Your task to perform on an android device: Open notification settings Image 0: 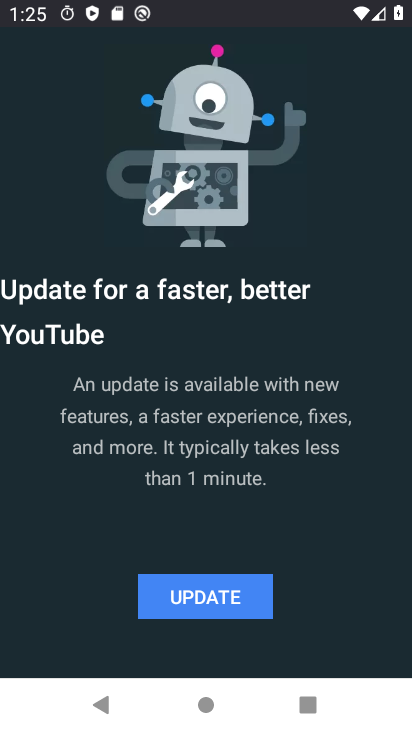
Step 0: press home button
Your task to perform on an android device: Open notification settings Image 1: 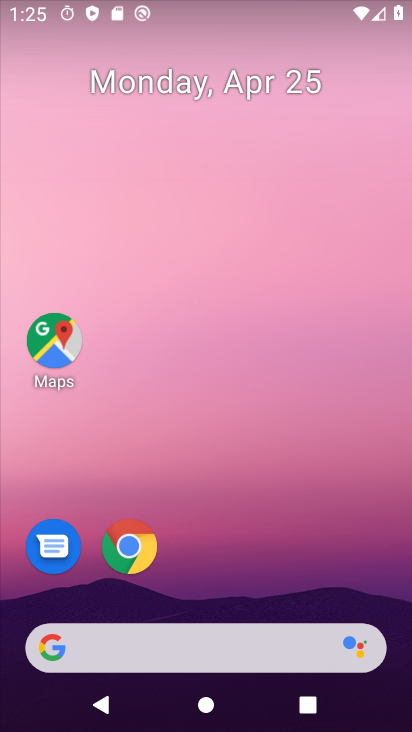
Step 1: drag from (210, 603) to (339, 24)
Your task to perform on an android device: Open notification settings Image 2: 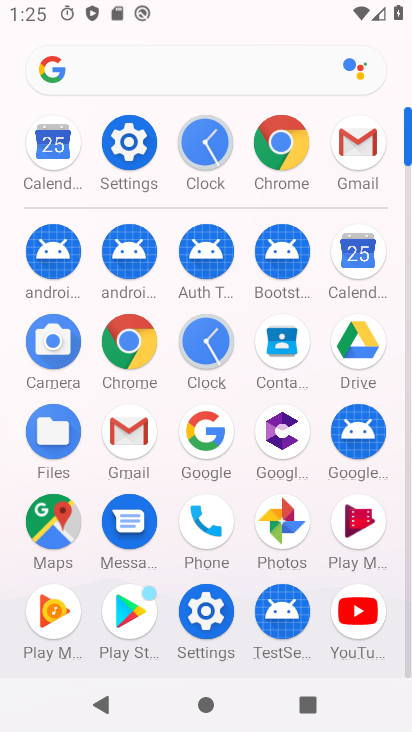
Step 2: click (189, 610)
Your task to perform on an android device: Open notification settings Image 3: 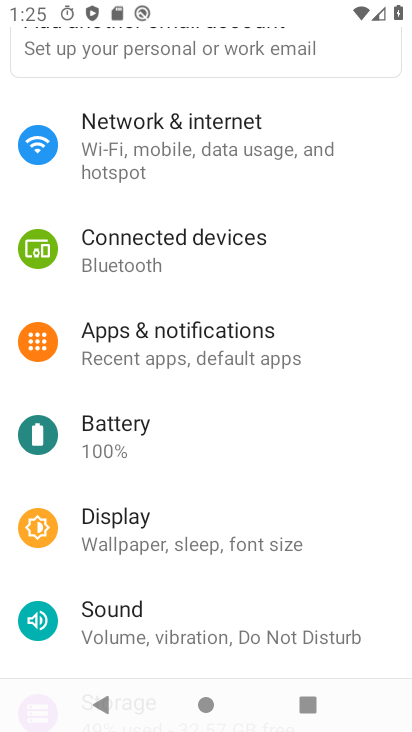
Step 3: click (154, 346)
Your task to perform on an android device: Open notification settings Image 4: 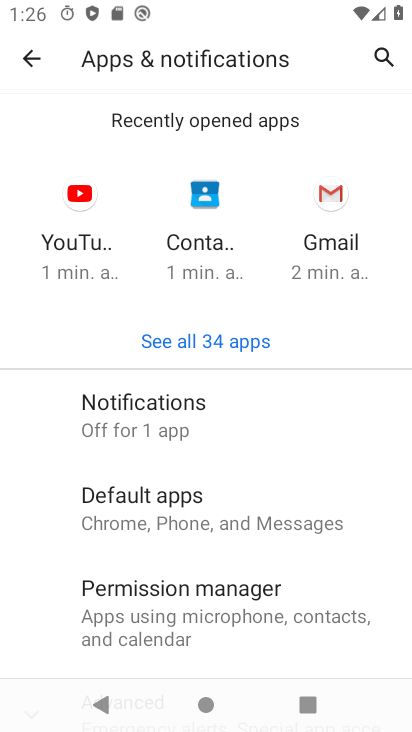
Step 4: click (177, 424)
Your task to perform on an android device: Open notification settings Image 5: 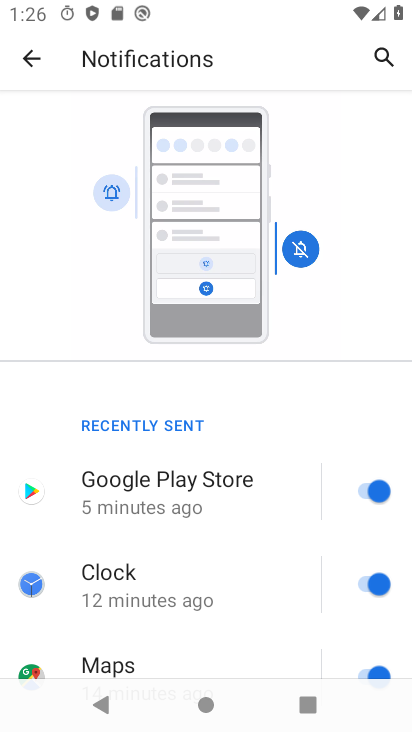
Step 5: drag from (205, 527) to (175, 141)
Your task to perform on an android device: Open notification settings Image 6: 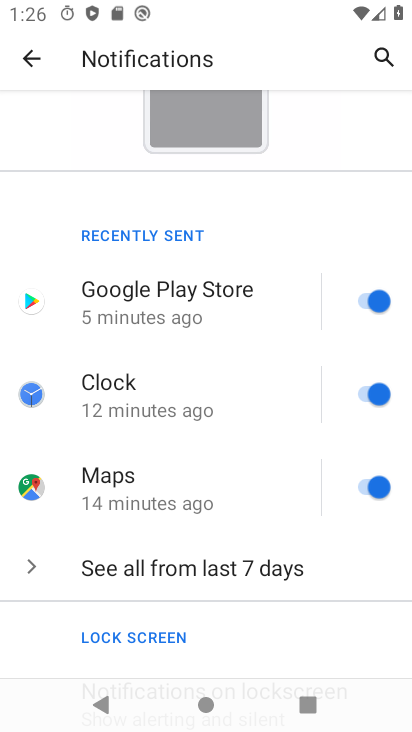
Step 6: click (190, 569)
Your task to perform on an android device: Open notification settings Image 7: 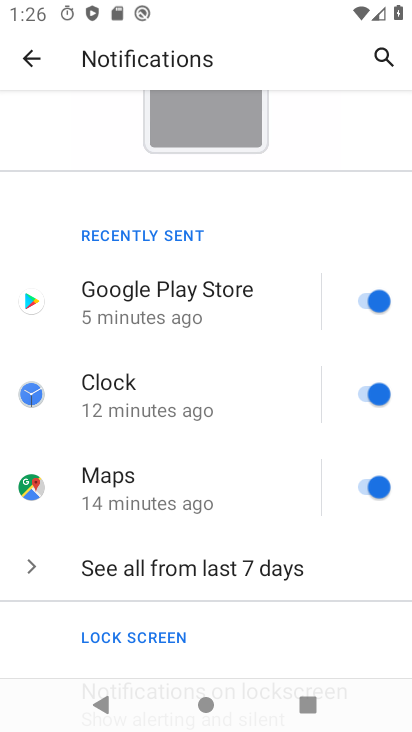
Step 7: task complete